Your task to perform on an android device: Go to network settings Image 0: 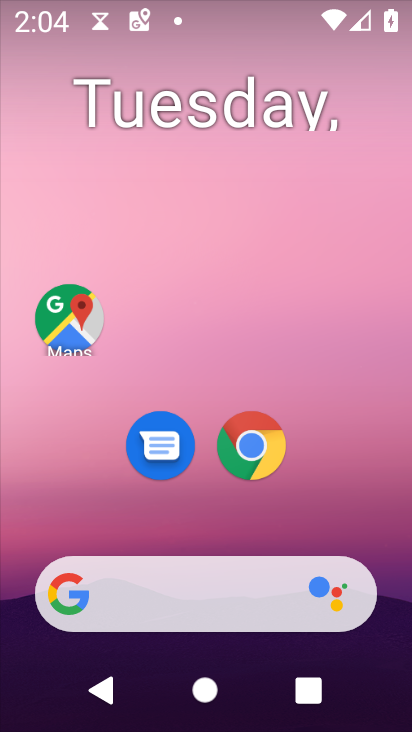
Step 0: drag from (369, 633) to (356, 1)
Your task to perform on an android device: Go to network settings Image 1: 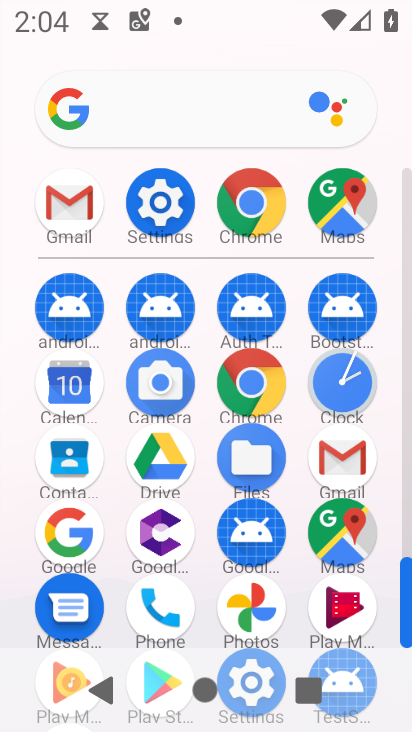
Step 1: click (153, 207)
Your task to perform on an android device: Go to network settings Image 2: 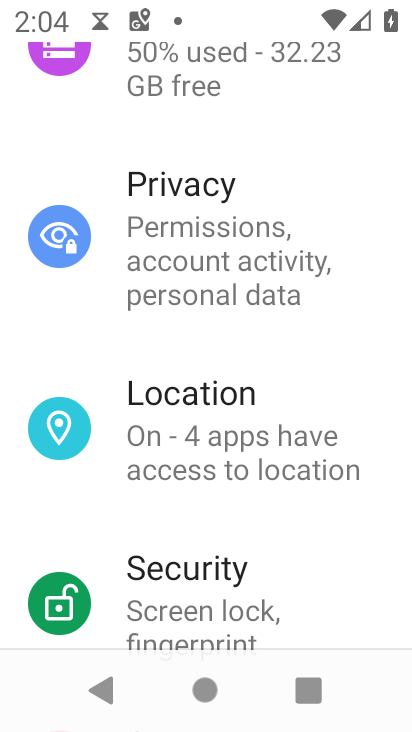
Step 2: drag from (284, 620) to (271, 672)
Your task to perform on an android device: Go to network settings Image 3: 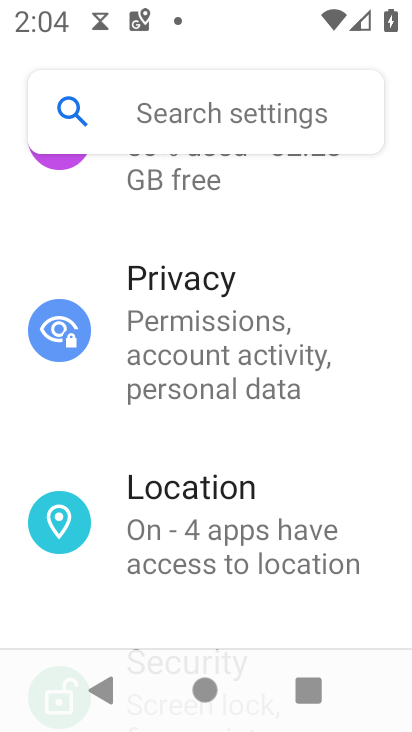
Step 3: drag from (268, 314) to (269, 604)
Your task to perform on an android device: Go to network settings Image 4: 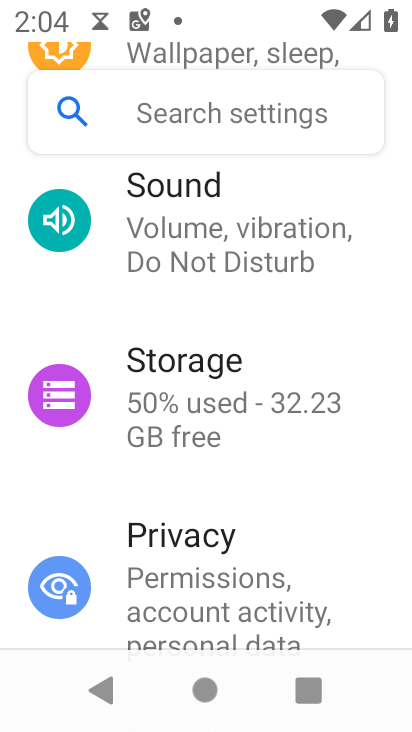
Step 4: drag from (274, 205) to (293, 660)
Your task to perform on an android device: Go to network settings Image 5: 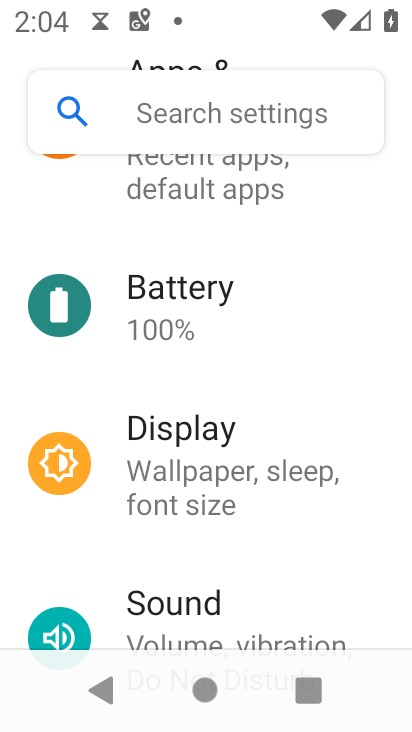
Step 5: drag from (285, 247) to (303, 623)
Your task to perform on an android device: Go to network settings Image 6: 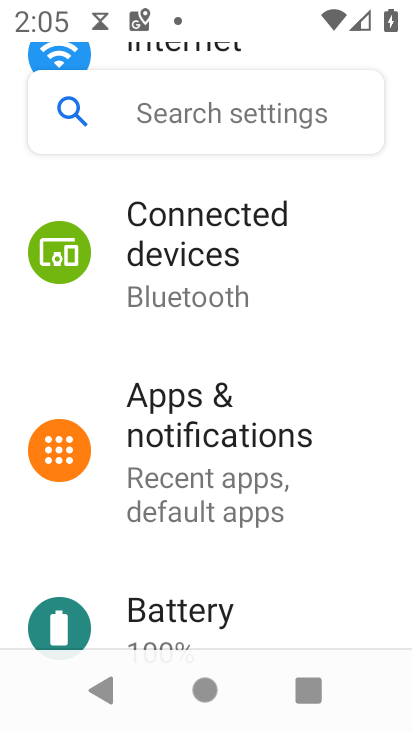
Step 6: click (245, 434)
Your task to perform on an android device: Go to network settings Image 7: 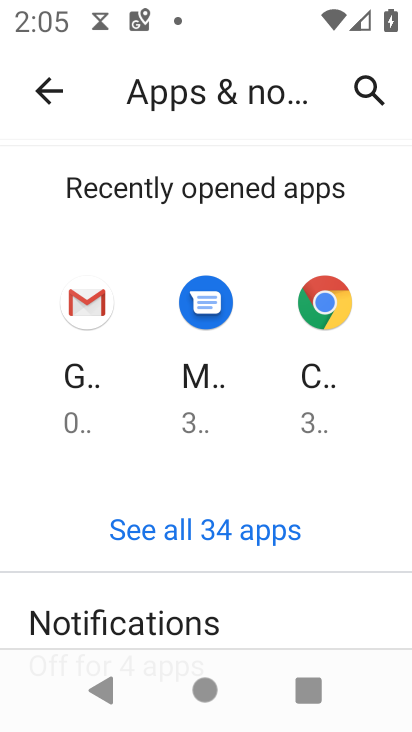
Step 7: drag from (268, 616) to (306, 147)
Your task to perform on an android device: Go to network settings Image 8: 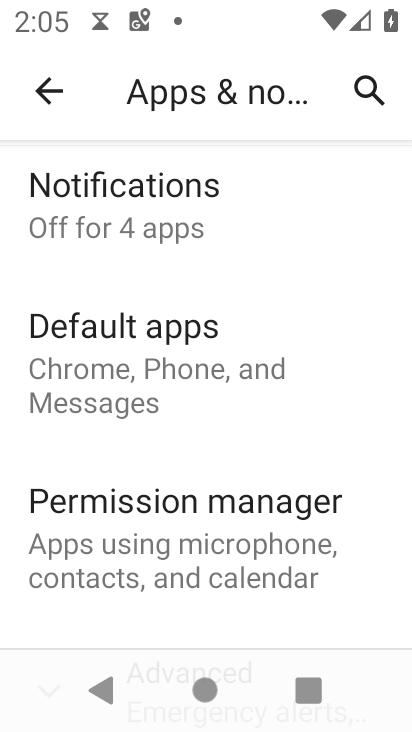
Step 8: drag from (345, 609) to (335, 217)
Your task to perform on an android device: Go to network settings Image 9: 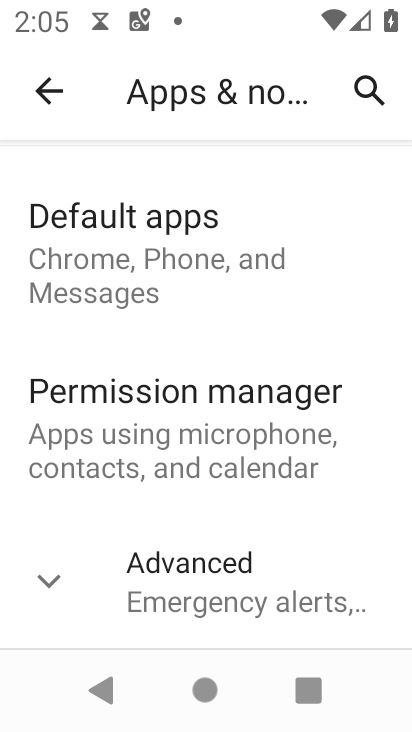
Step 9: drag from (269, 409) to (300, 714)
Your task to perform on an android device: Go to network settings Image 10: 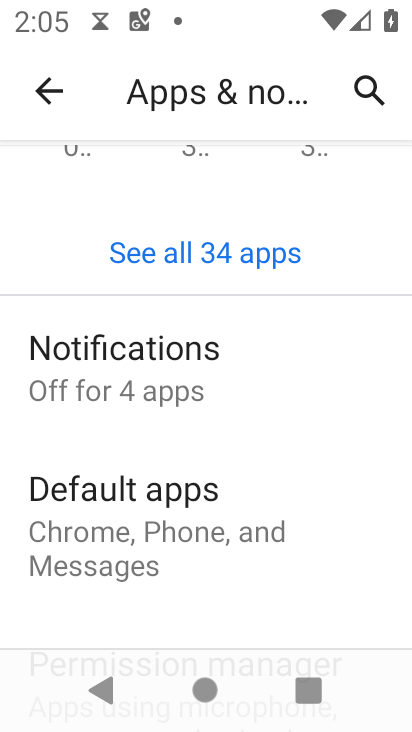
Step 10: press back button
Your task to perform on an android device: Go to network settings Image 11: 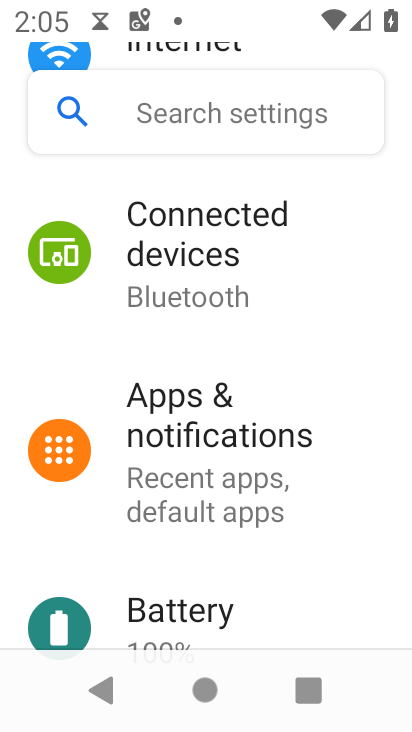
Step 11: drag from (208, 269) to (229, 640)
Your task to perform on an android device: Go to network settings Image 12: 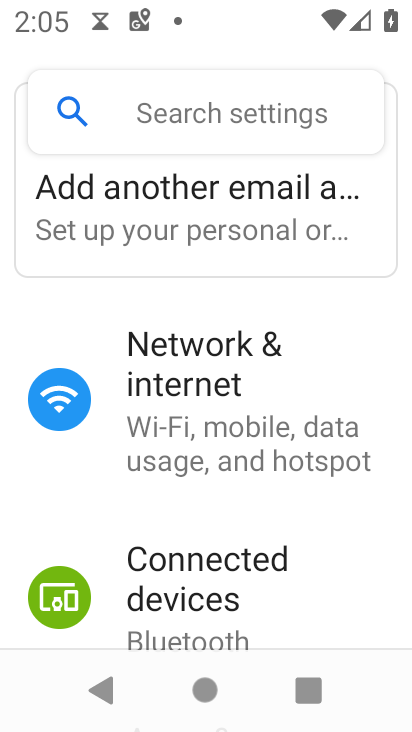
Step 12: click (256, 380)
Your task to perform on an android device: Go to network settings Image 13: 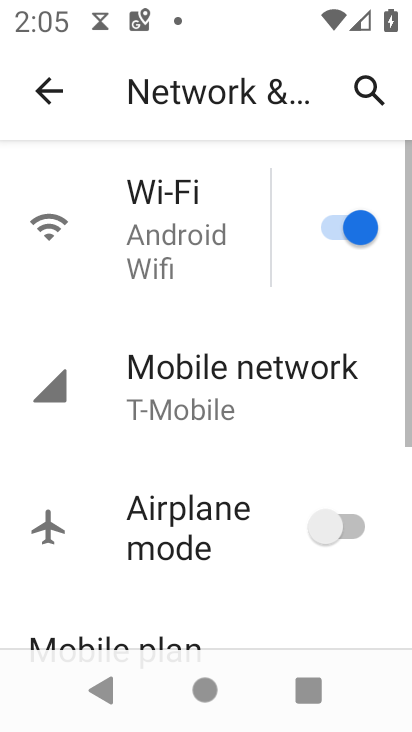
Step 13: drag from (233, 550) to (246, 340)
Your task to perform on an android device: Go to network settings Image 14: 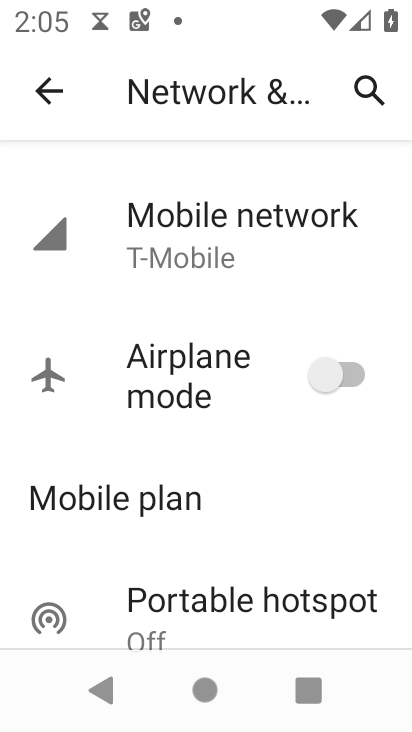
Step 14: click (237, 235)
Your task to perform on an android device: Go to network settings Image 15: 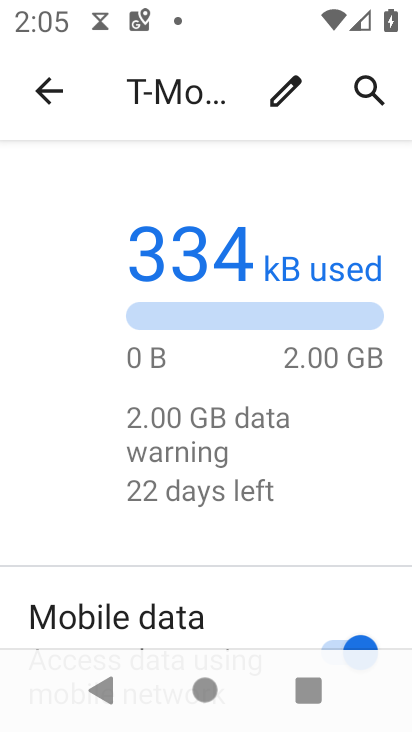
Step 15: task complete